Your task to perform on an android device: change the clock display to digital Image 0: 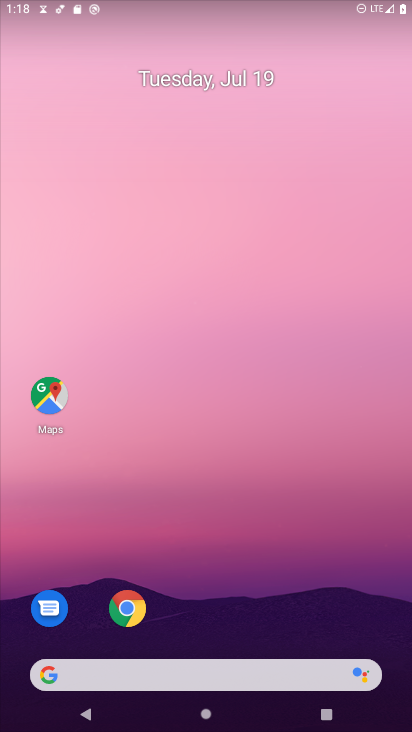
Step 0: drag from (229, 679) to (341, 4)
Your task to perform on an android device: change the clock display to digital Image 1: 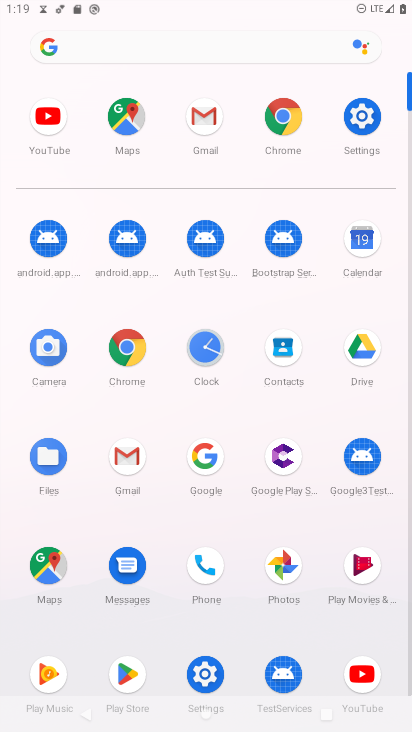
Step 1: click (208, 355)
Your task to perform on an android device: change the clock display to digital Image 2: 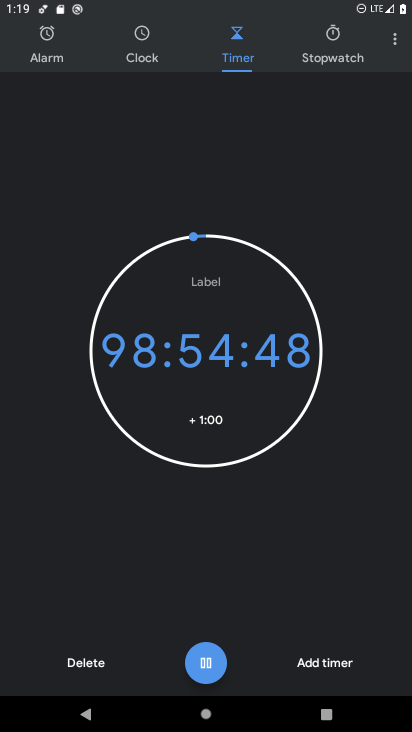
Step 2: click (391, 40)
Your task to perform on an android device: change the clock display to digital Image 3: 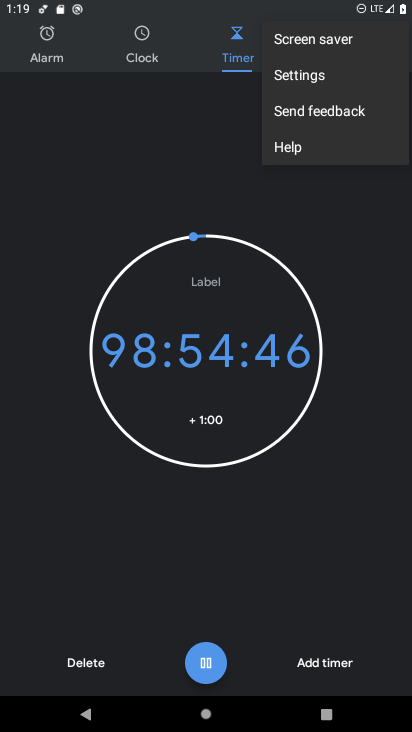
Step 3: click (314, 78)
Your task to perform on an android device: change the clock display to digital Image 4: 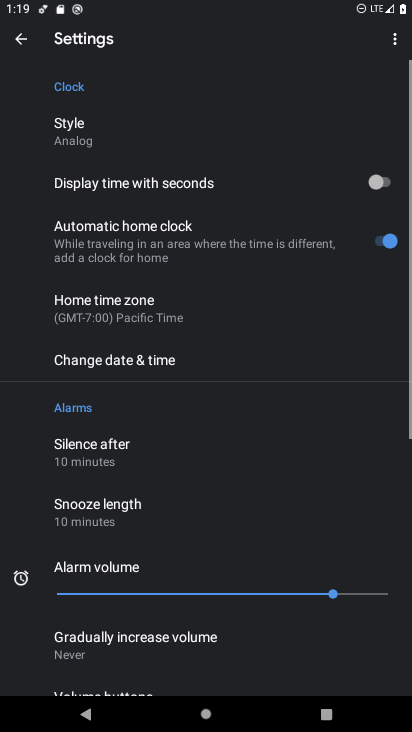
Step 4: click (112, 137)
Your task to perform on an android device: change the clock display to digital Image 5: 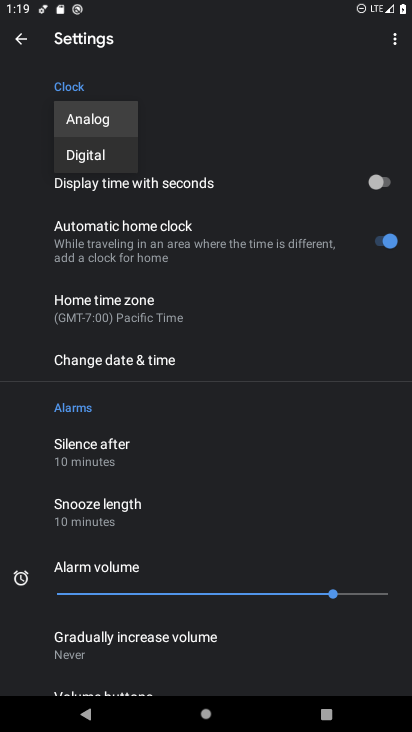
Step 5: click (88, 158)
Your task to perform on an android device: change the clock display to digital Image 6: 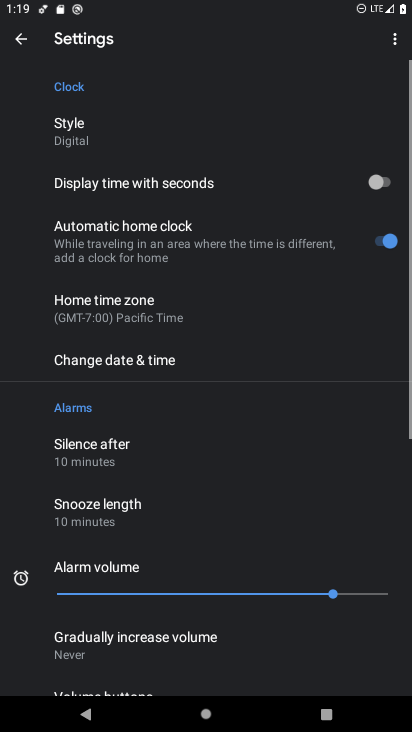
Step 6: task complete